Your task to perform on an android device: change the clock display to show seconds Image 0: 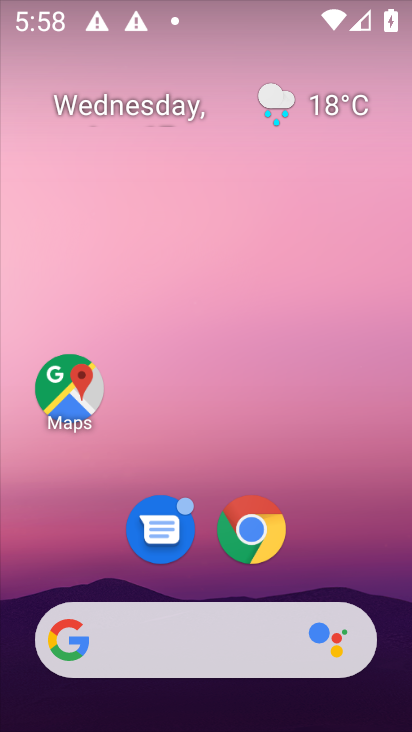
Step 0: drag from (204, 576) to (230, 43)
Your task to perform on an android device: change the clock display to show seconds Image 1: 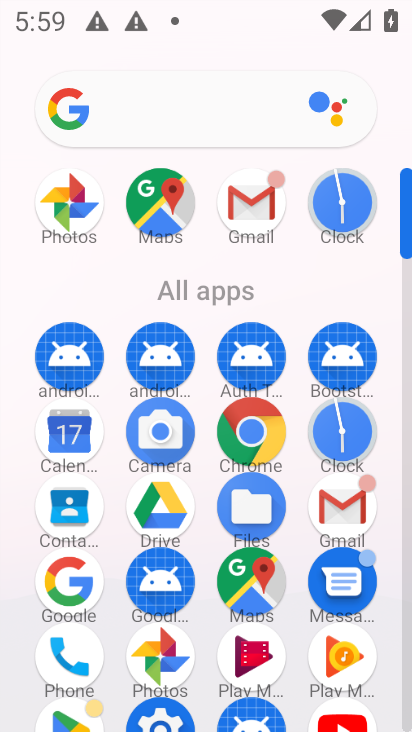
Step 1: drag from (206, 635) to (251, 357)
Your task to perform on an android device: change the clock display to show seconds Image 2: 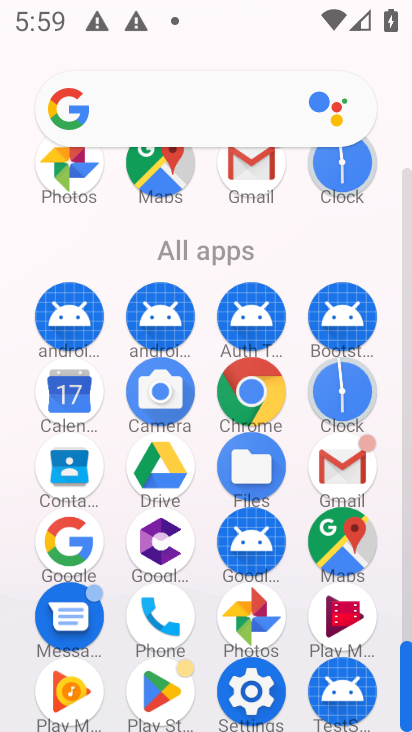
Step 2: click (338, 166)
Your task to perform on an android device: change the clock display to show seconds Image 3: 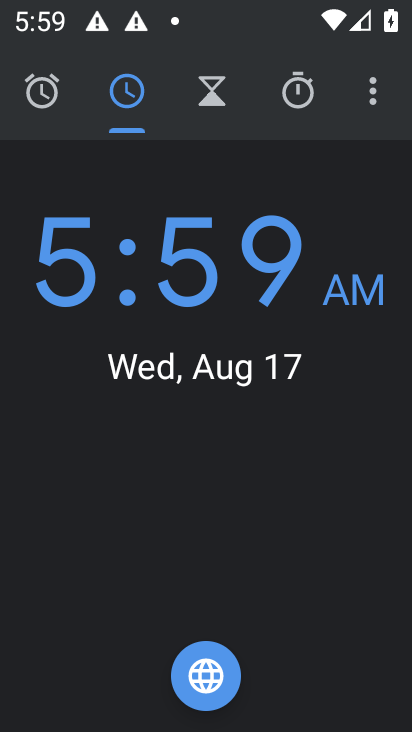
Step 3: click (375, 97)
Your task to perform on an android device: change the clock display to show seconds Image 4: 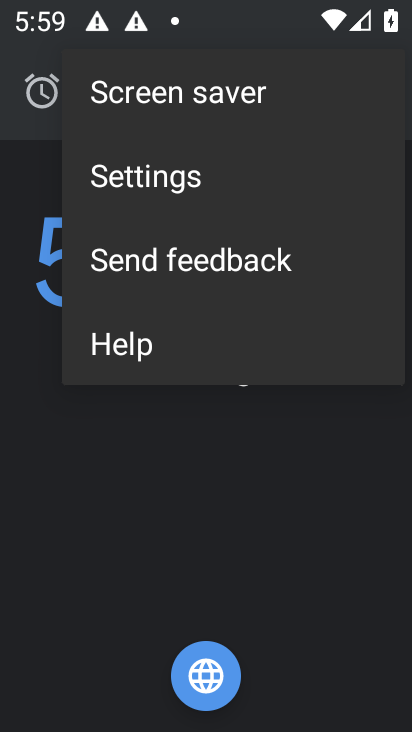
Step 4: click (161, 163)
Your task to perform on an android device: change the clock display to show seconds Image 5: 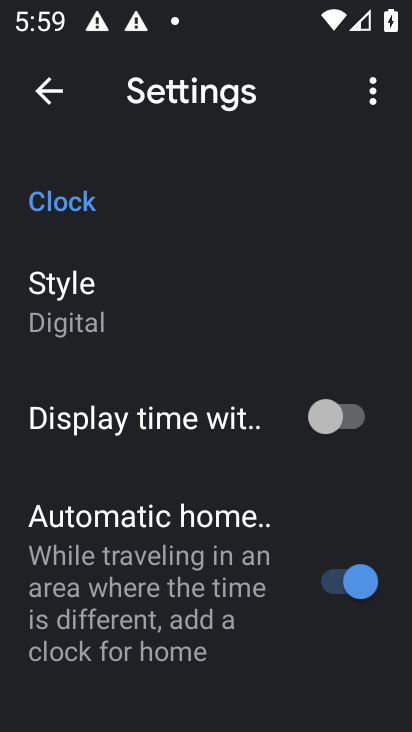
Step 5: click (360, 418)
Your task to perform on an android device: change the clock display to show seconds Image 6: 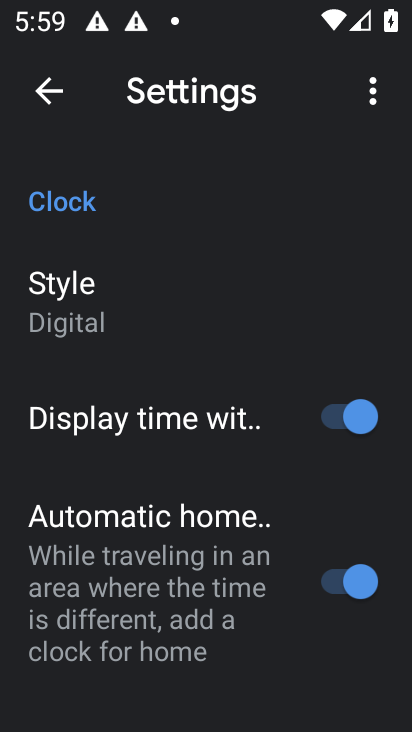
Step 6: task complete